Your task to perform on an android device: toggle show notifications on the lock screen Image 0: 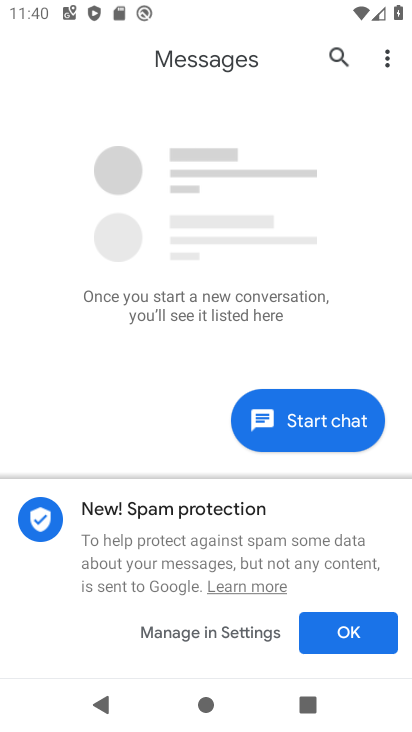
Step 0: press home button
Your task to perform on an android device: toggle show notifications on the lock screen Image 1: 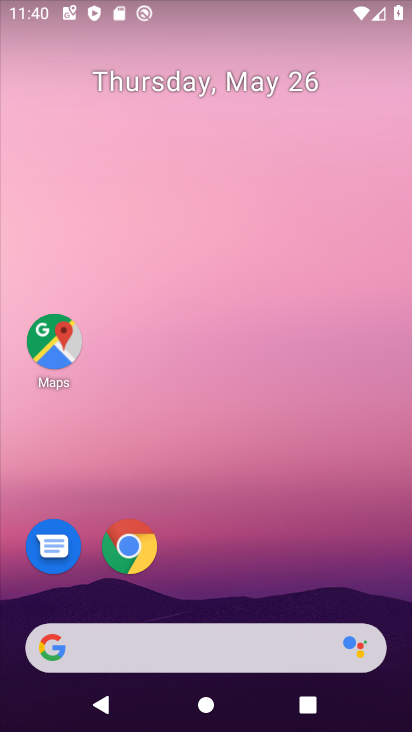
Step 1: drag from (335, 484) to (243, 29)
Your task to perform on an android device: toggle show notifications on the lock screen Image 2: 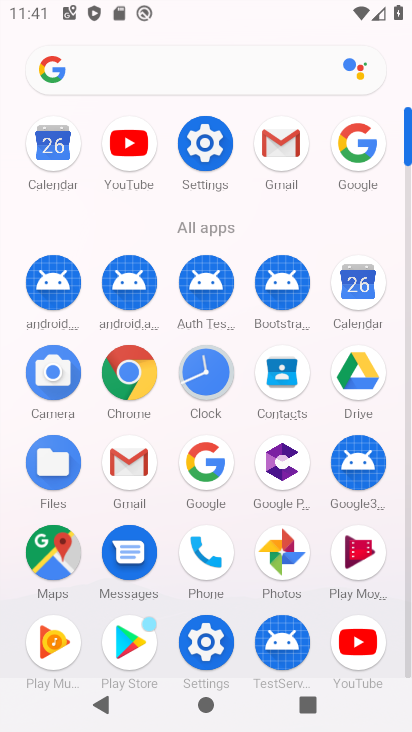
Step 2: click (199, 150)
Your task to perform on an android device: toggle show notifications on the lock screen Image 3: 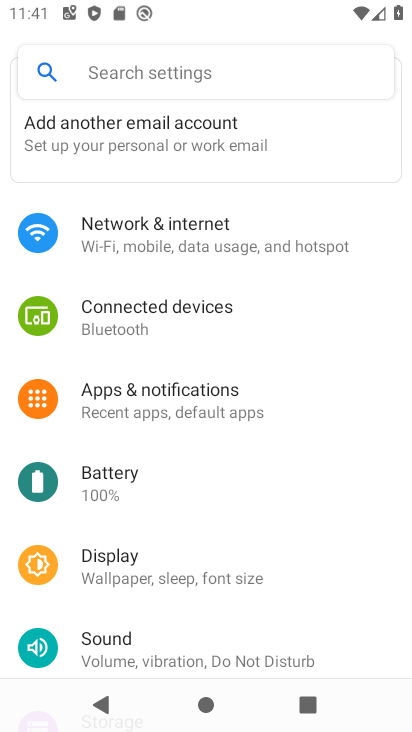
Step 3: click (168, 387)
Your task to perform on an android device: toggle show notifications on the lock screen Image 4: 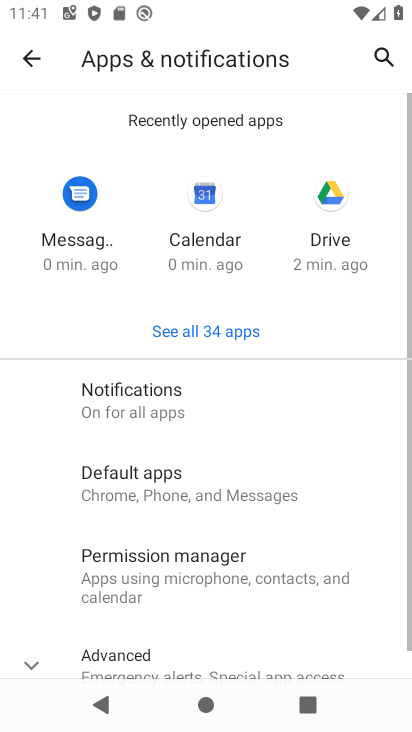
Step 4: click (135, 391)
Your task to perform on an android device: toggle show notifications on the lock screen Image 5: 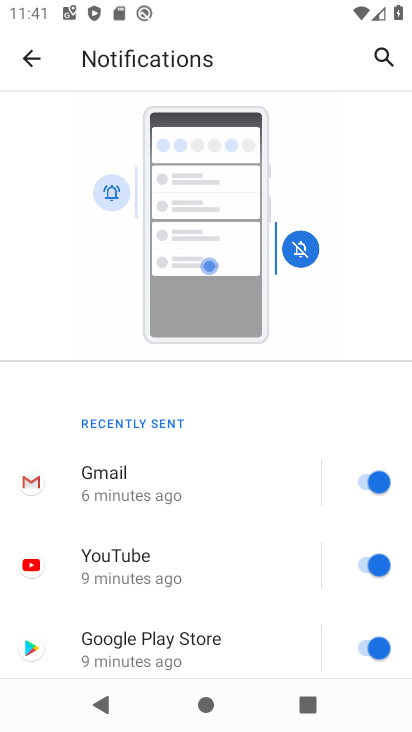
Step 5: drag from (215, 580) to (170, 247)
Your task to perform on an android device: toggle show notifications on the lock screen Image 6: 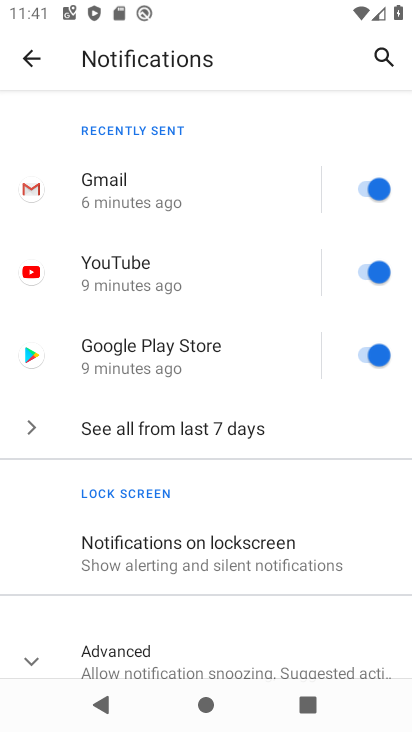
Step 6: click (204, 533)
Your task to perform on an android device: toggle show notifications on the lock screen Image 7: 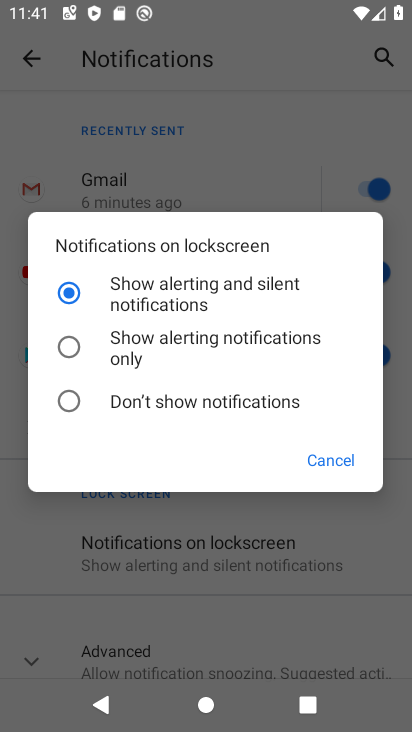
Step 7: click (67, 403)
Your task to perform on an android device: toggle show notifications on the lock screen Image 8: 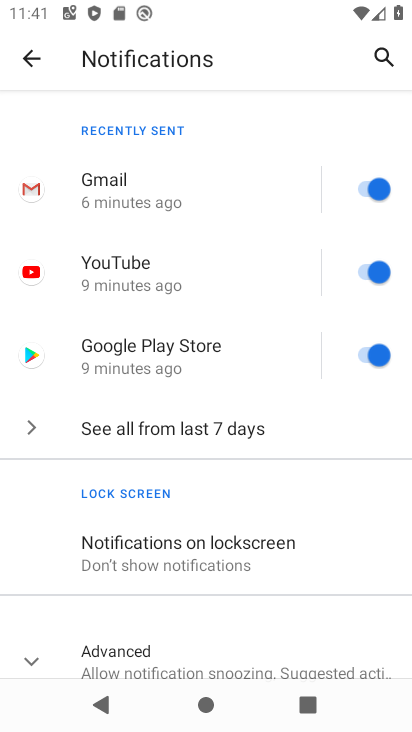
Step 8: task complete